Your task to perform on an android device: Clear all items from cart on newegg.com. Image 0: 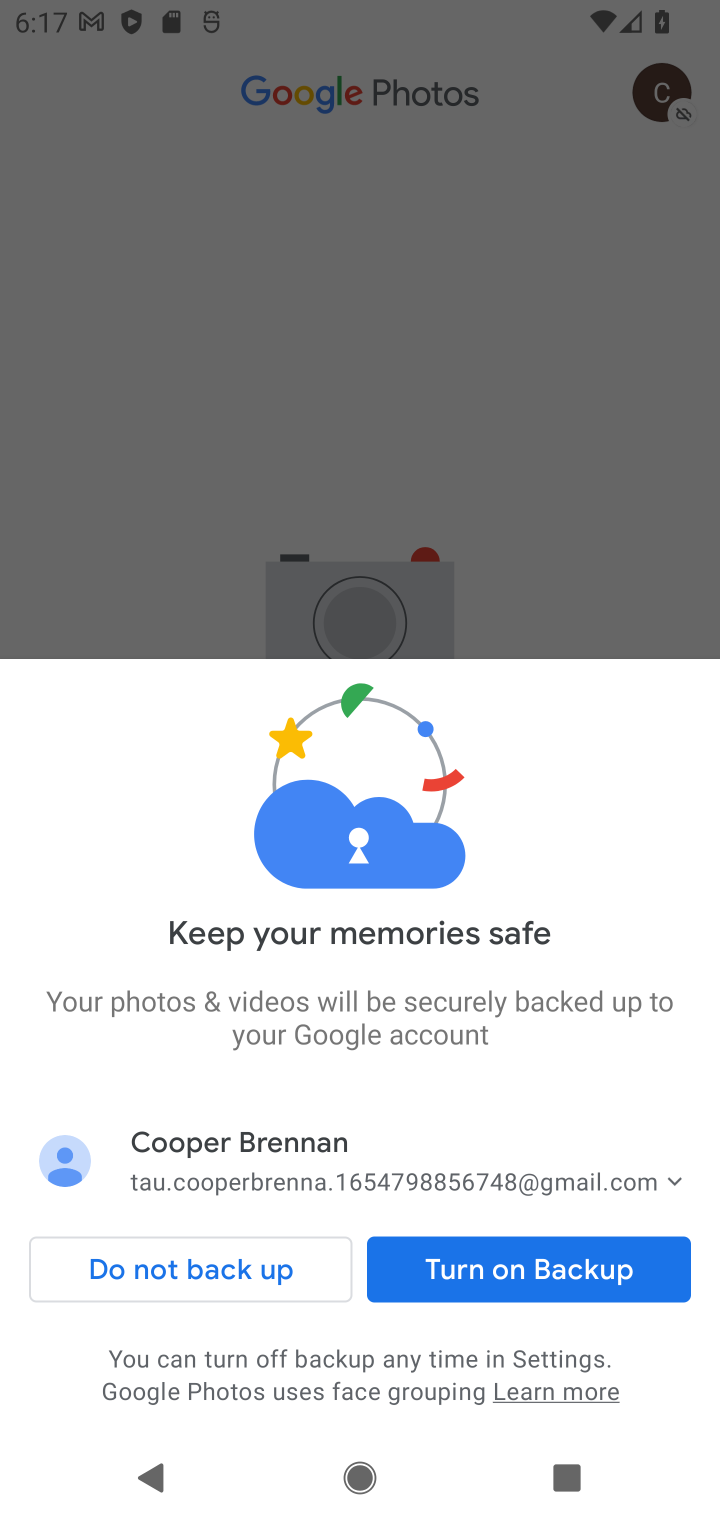
Step 0: press home button
Your task to perform on an android device: Clear all items from cart on newegg.com. Image 1: 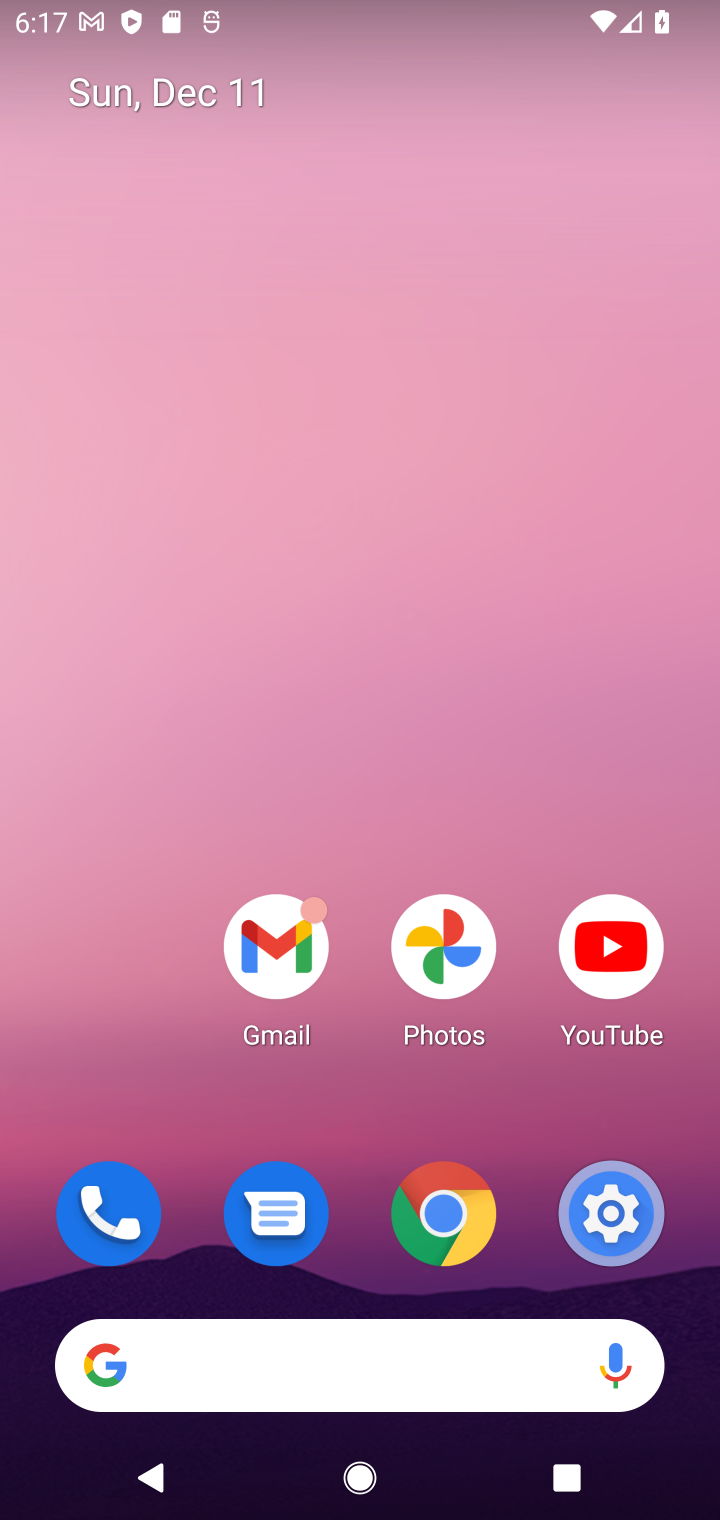
Step 1: click (243, 1400)
Your task to perform on an android device: Clear all items from cart on newegg.com. Image 2: 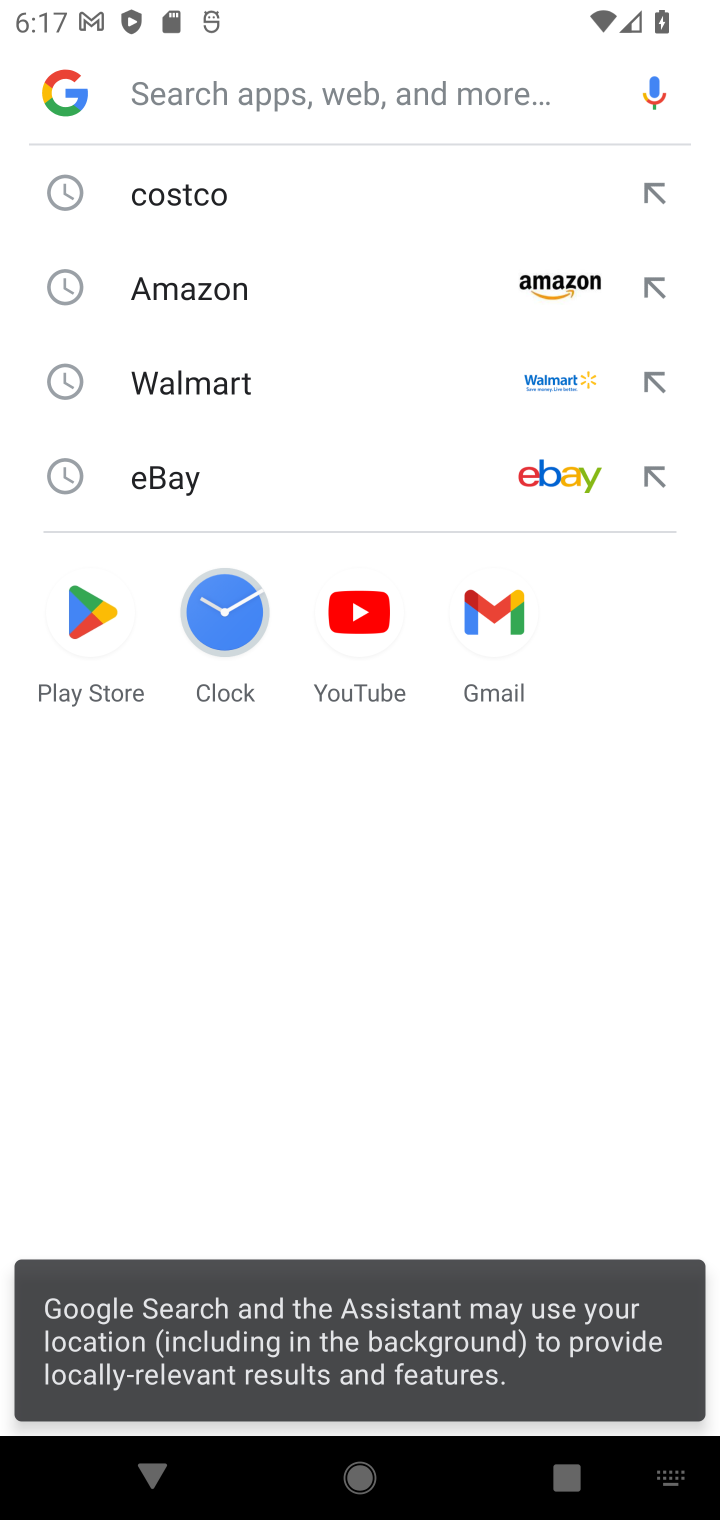
Step 2: type "newegg.com"
Your task to perform on an android device: Clear all items from cart on newegg.com. Image 3: 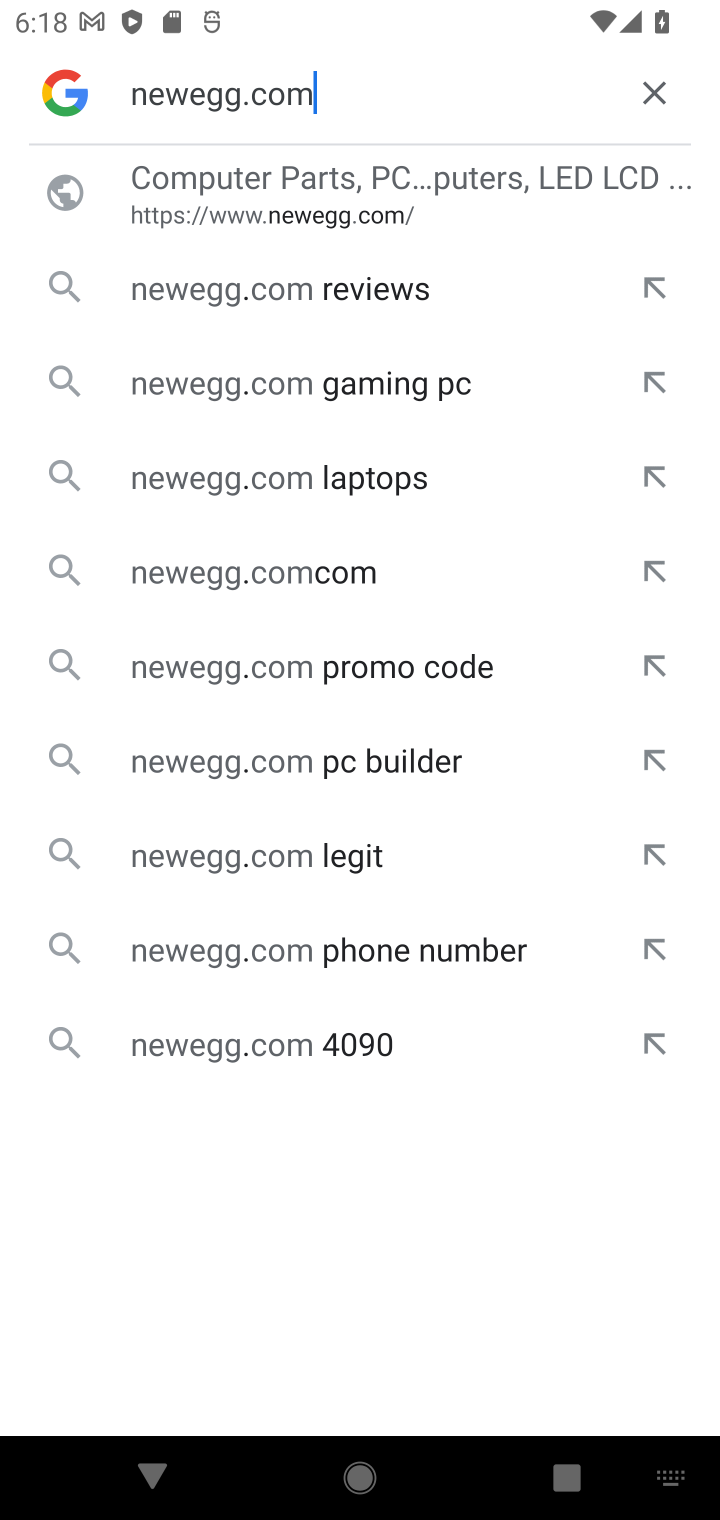
Step 3: click (240, 203)
Your task to perform on an android device: Clear all items from cart on newegg.com. Image 4: 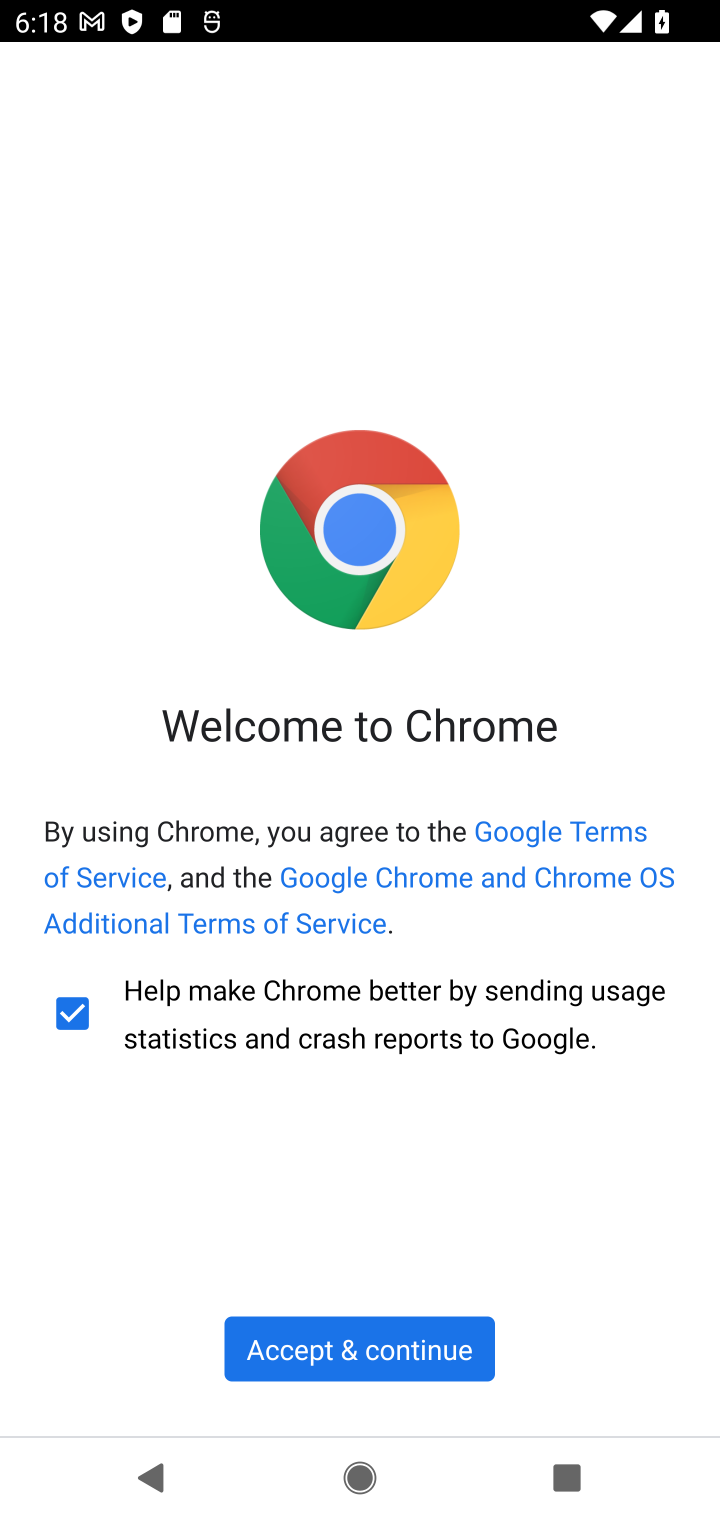
Step 4: click (439, 1339)
Your task to perform on an android device: Clear all items from cart on newegg.com. Image 5: 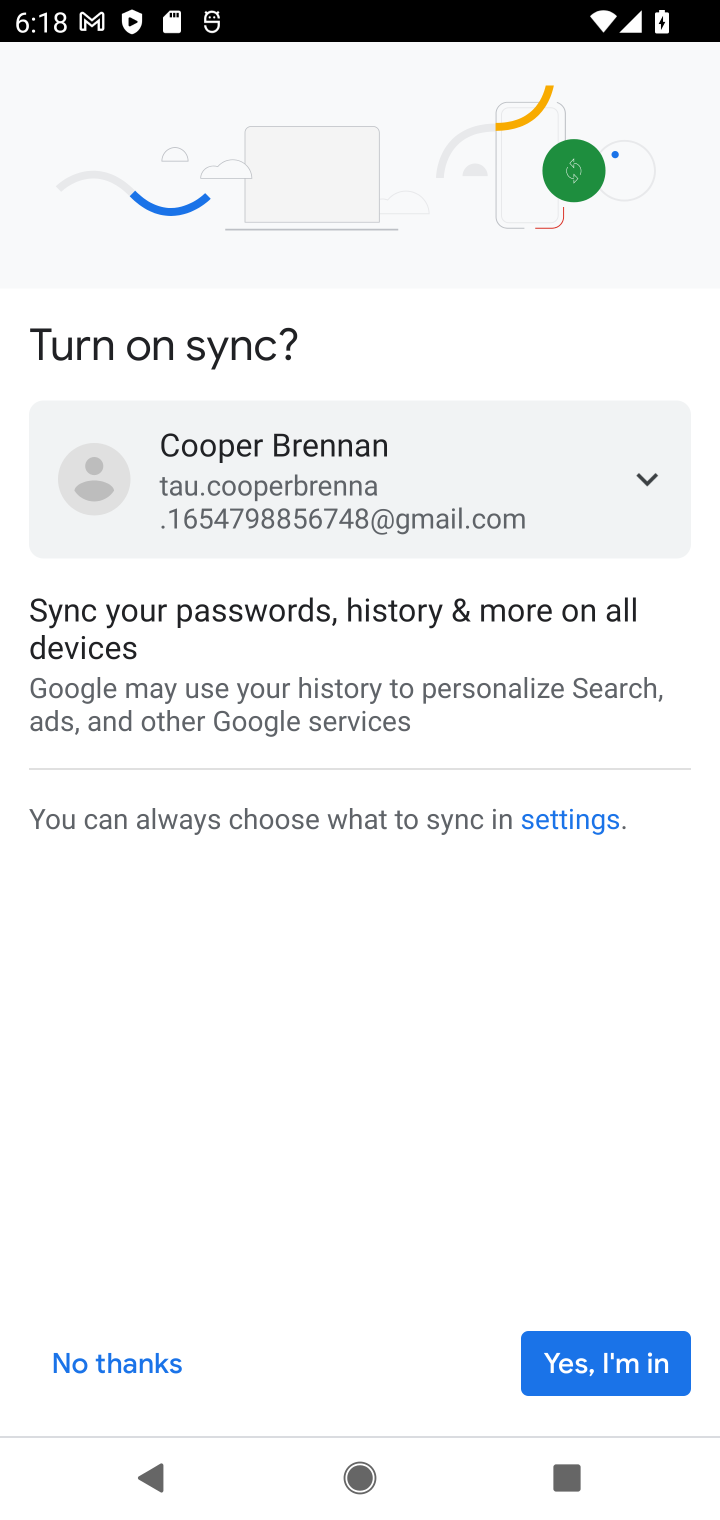
Step 5: click (573, 1389)
Your task to perform on an android device: Clear all items from cart on newegg.com. Image 6: 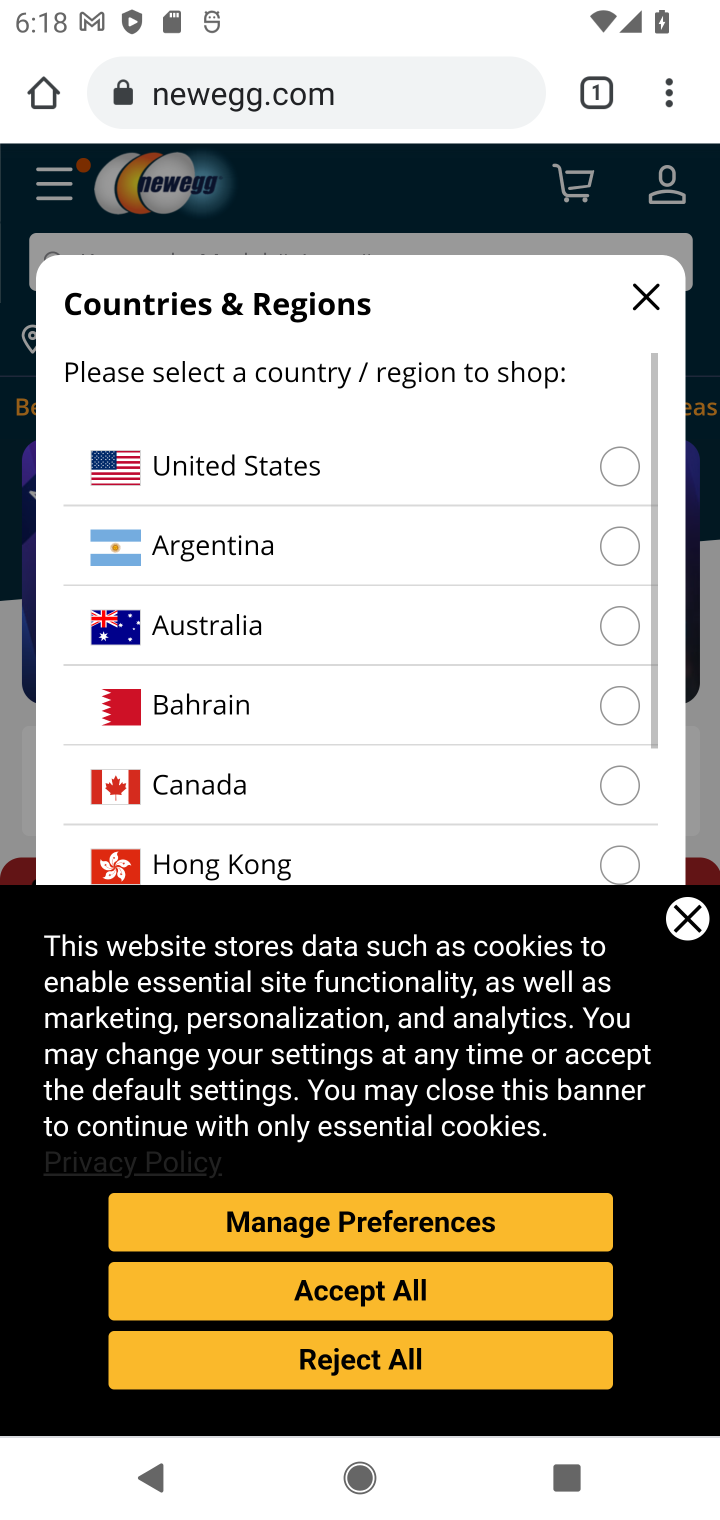
Step 6: click (377, 1318)
Your task to perform on an android device: Clear all items from cart on newegg.com. Image 7: 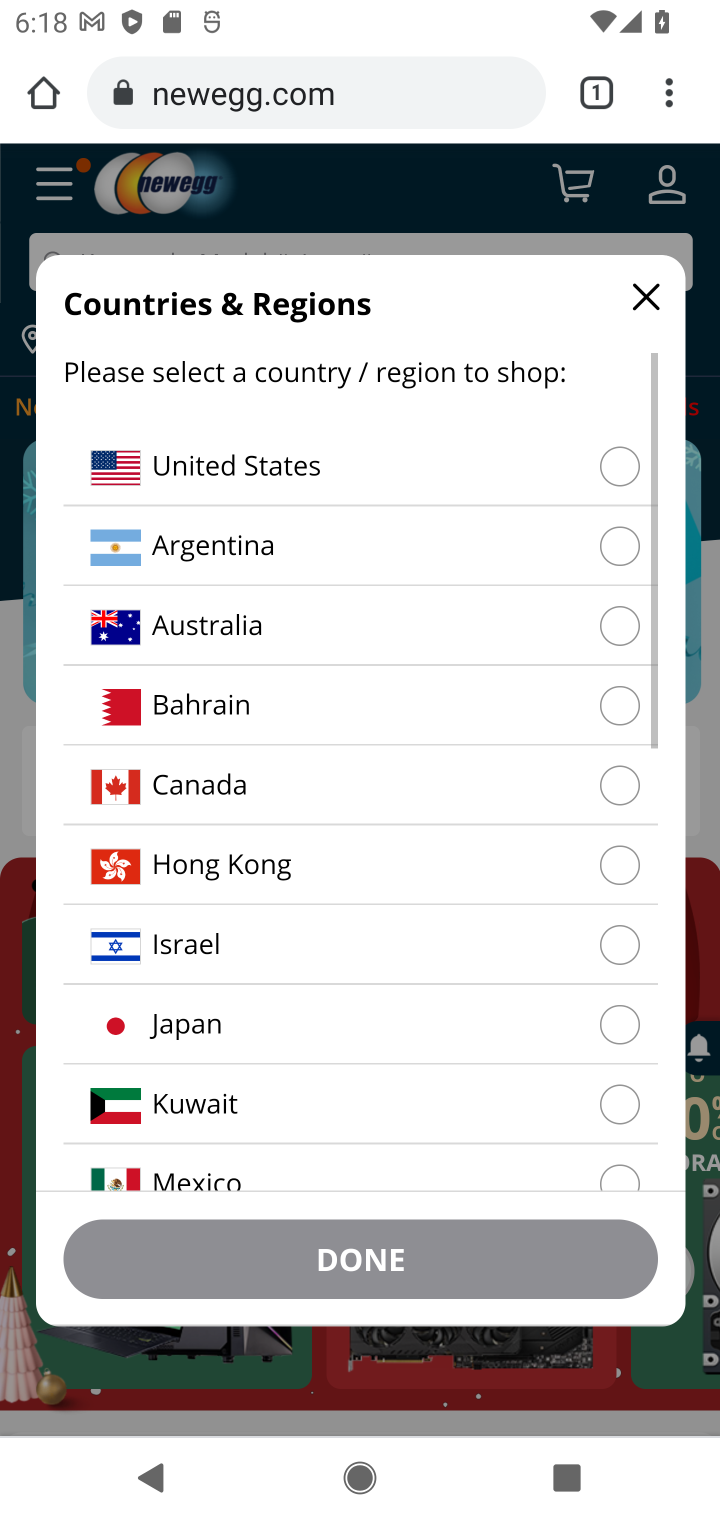
Step 7: click (247, 474)
Your task to perform on an android device: Clear all items from cart on newegg.com. Image 8: 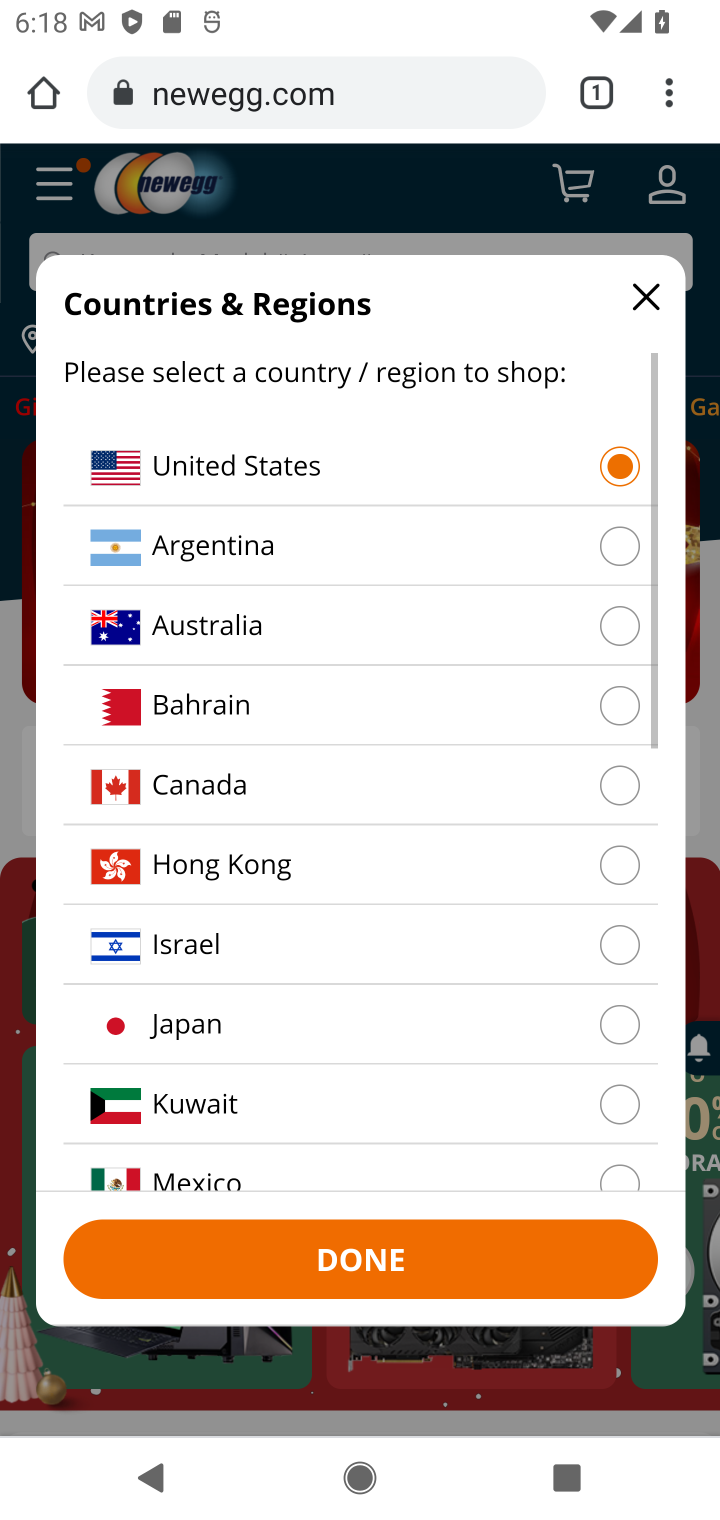
Step 8: click (263, 1288)
Your task to perform on an android device: Clear all items from cart on newegg.com. Image 9: 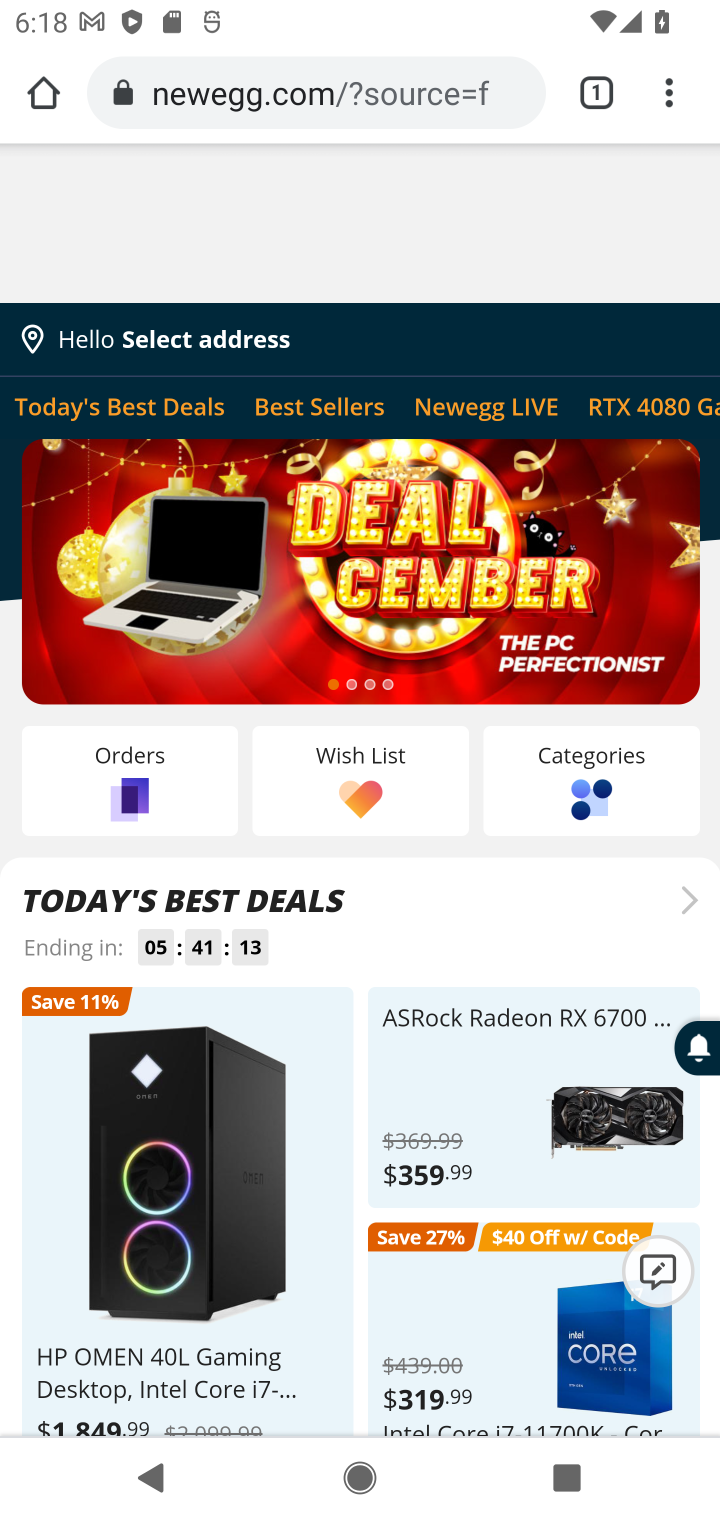
Step 9: click (263, 260)
Your task to perform on an android device: Clear all items from cart on newegg.com. Image 10: 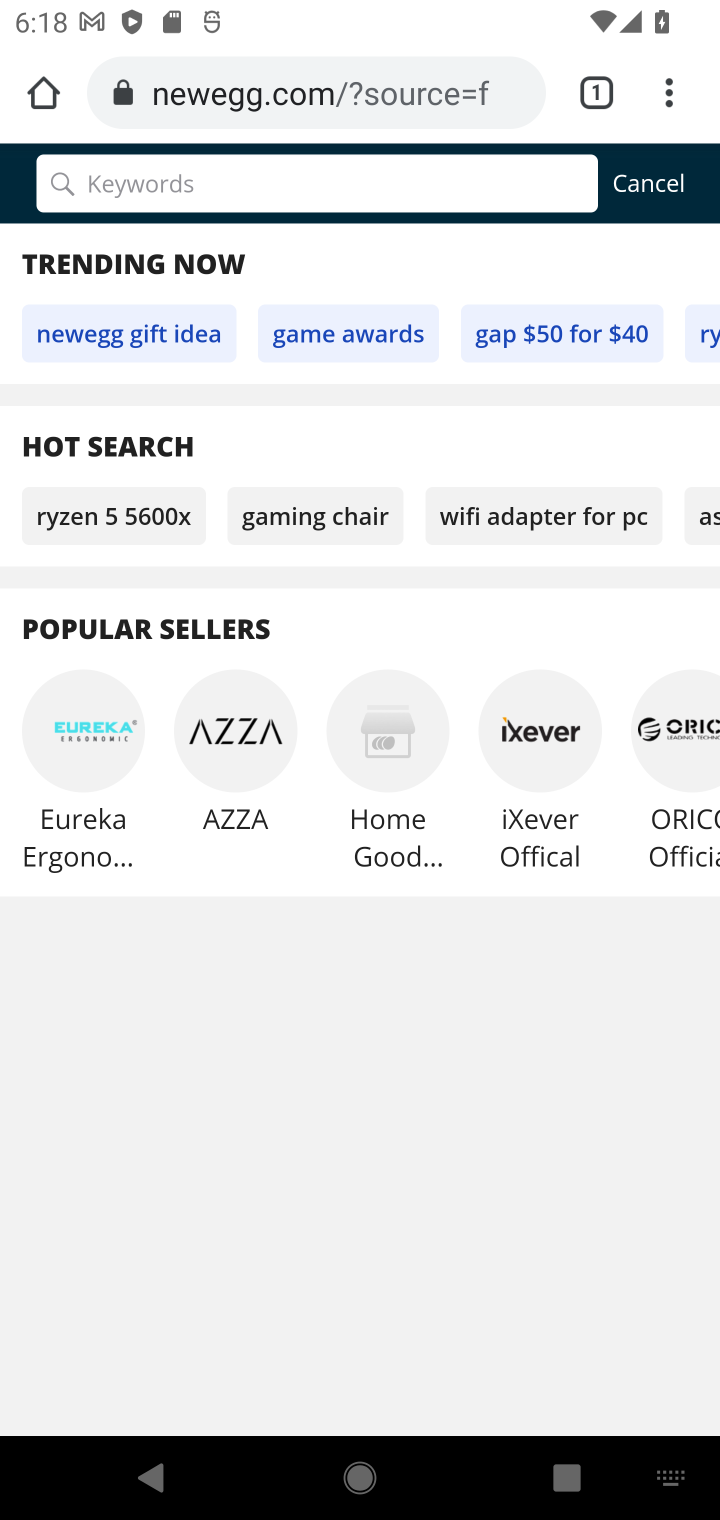
Step 10: click (658, 204)
Your task to perform on an android device: Clear all items from cart on newegg.com. Image 11: 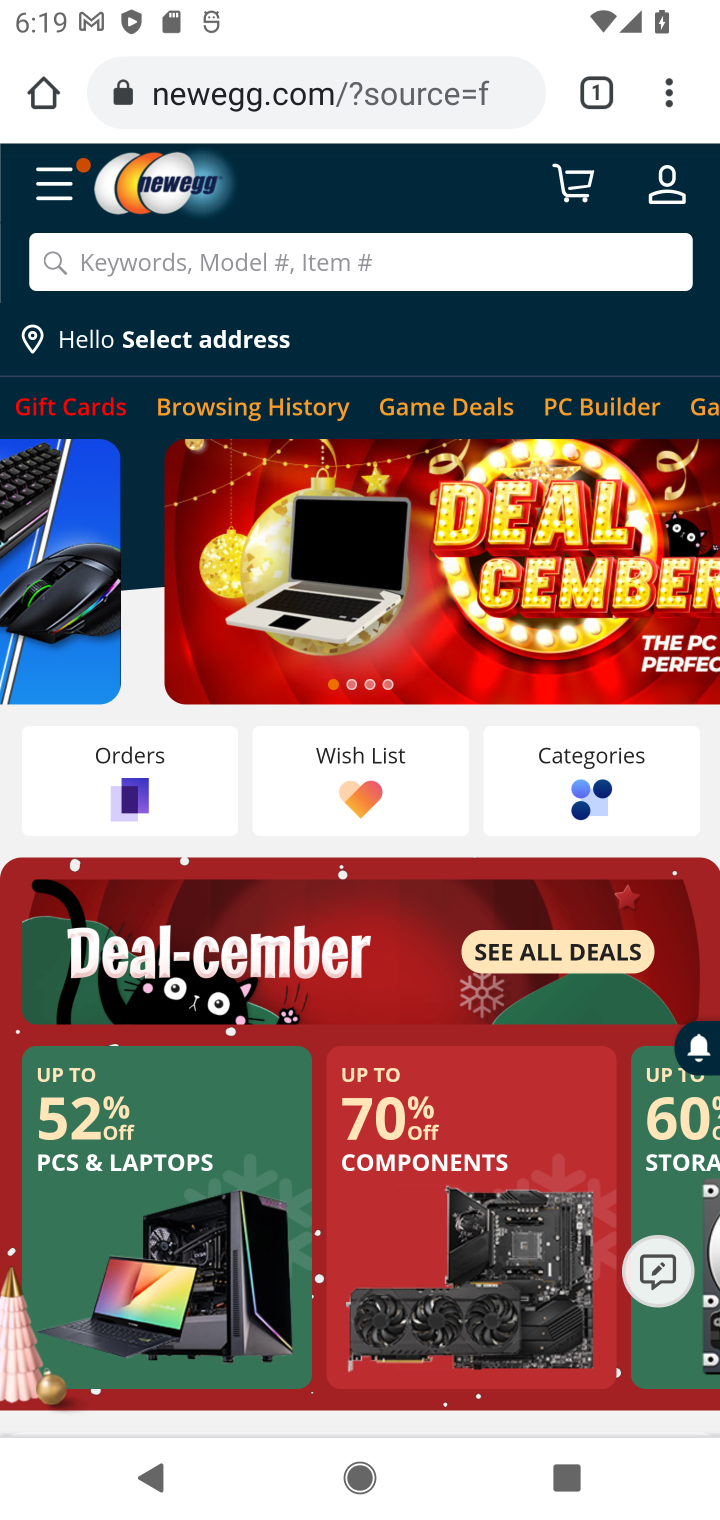
Step 11: click (553, 168)
Your task to perform on an android device: Clear all items from cart on newegg.com. Image 12: 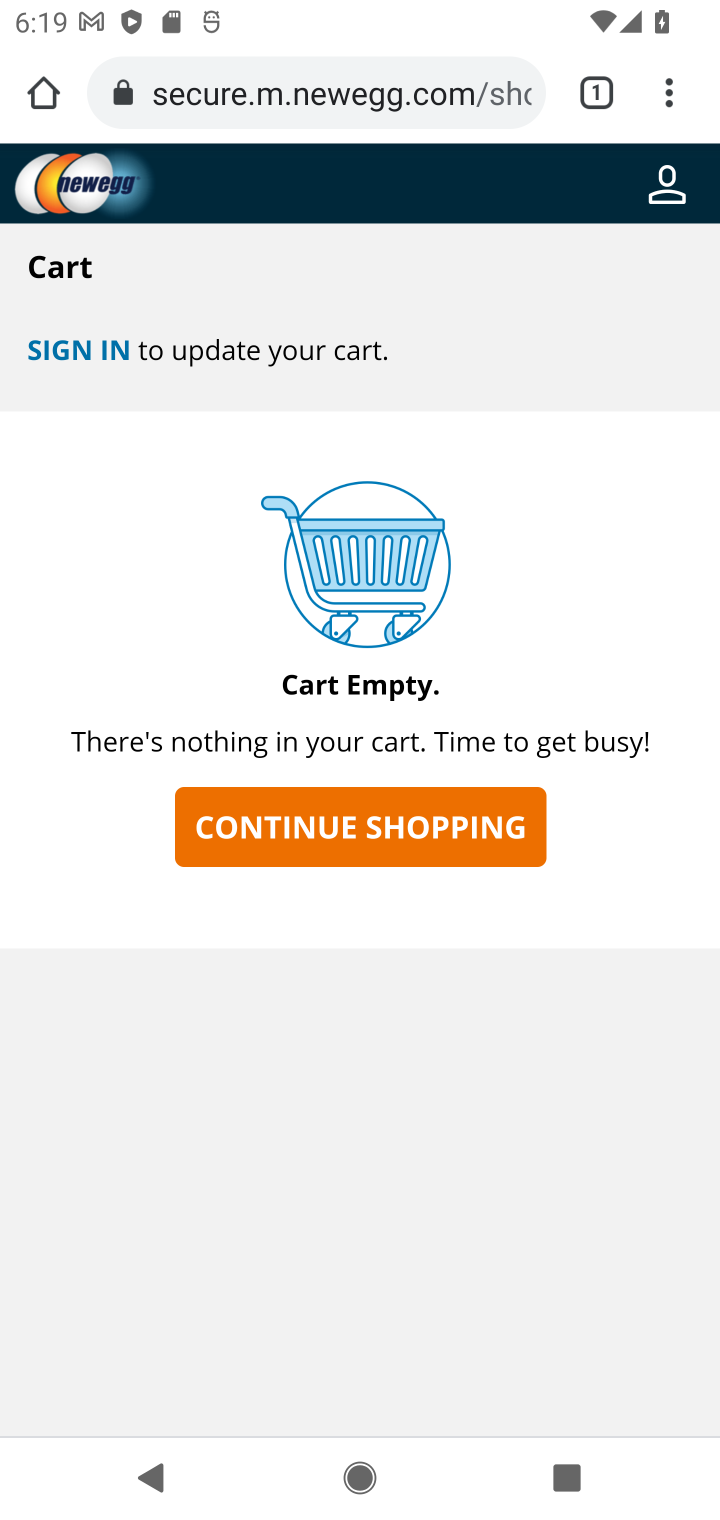
Step 12: task complete